Your task to perform on an android device: Open calendar and show me the first week of next month Image 0: 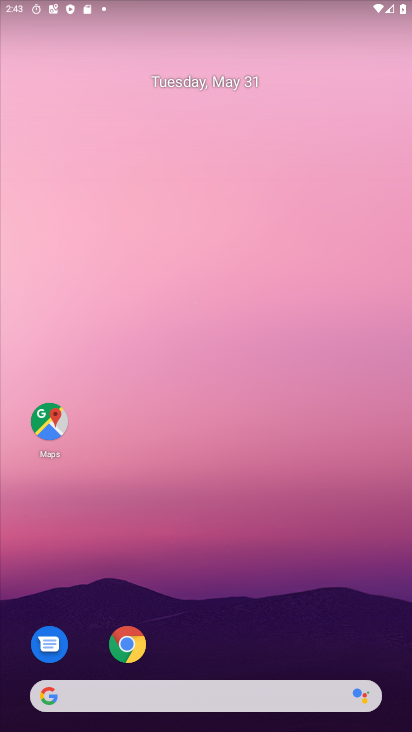
Step 0: drag from (390, 713) to (321, 122)
Your task to perform on an android device: Open calendar and show me the first week of next month Image 1: 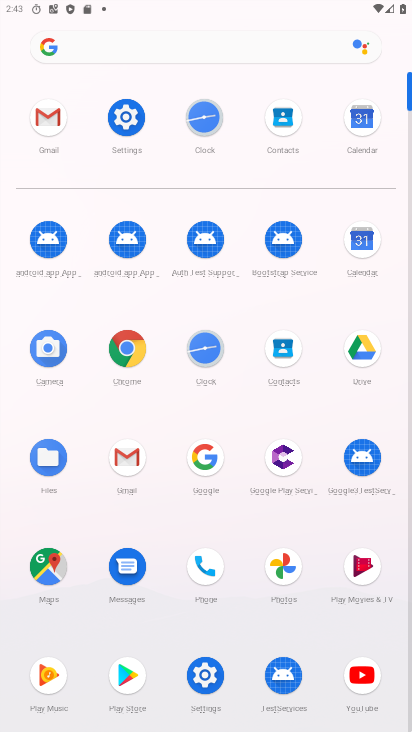
Step 1: click (119, 117)
Your task to perform on an android device: Open calendar and show me the first week of next month Image 2: 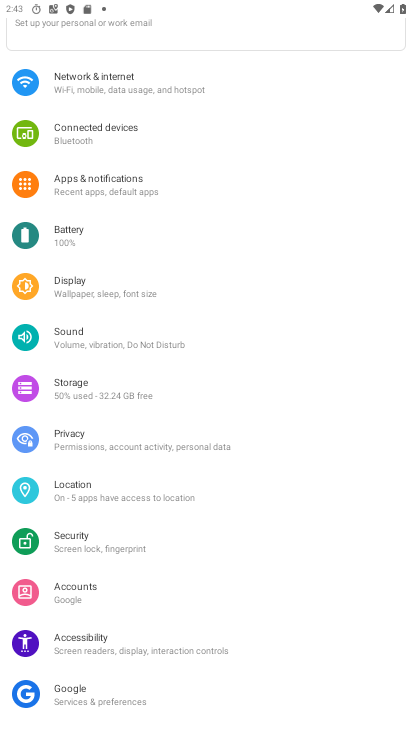
Step 2: press back button
Your task to perform on an android device: Open calendar and show me the first week of next month Image 3: 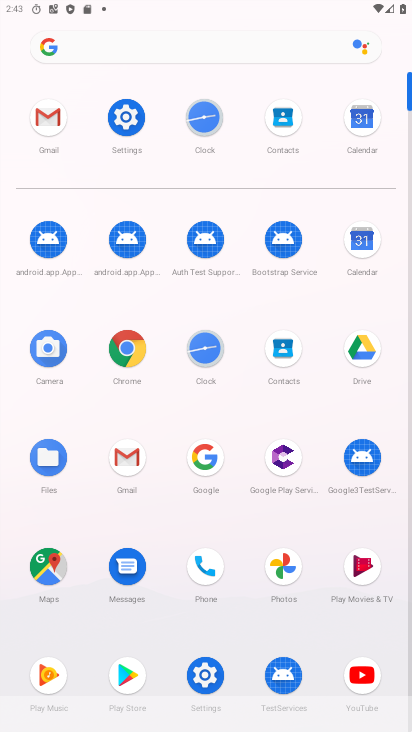
Step 3: click (121, 109)
Your task to perform on an android device: Open calendar and show me the first week of next month Image 4: 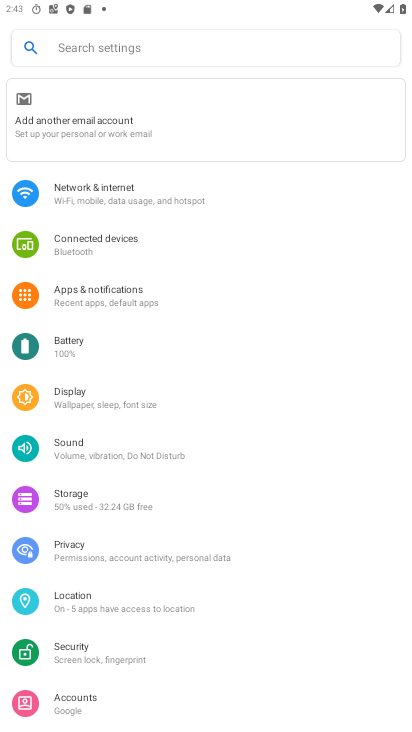
Step 4: press back button
Your task to perform on an android device: Open calendar and show me the first week of next month Image 5: 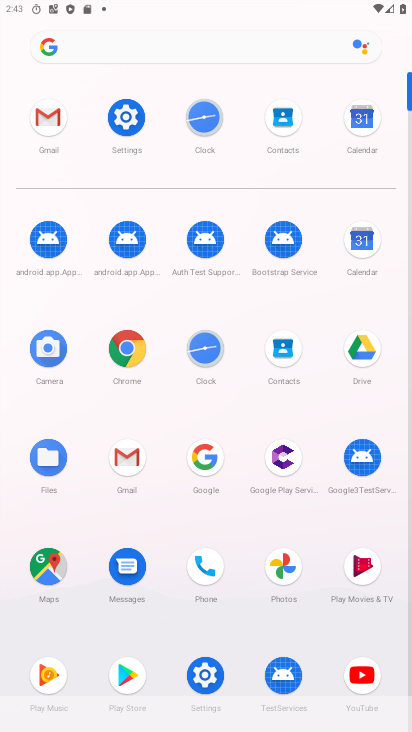
Step 5: click (364, 242)
Your task to perform on an android device: Open calendar and show me the first week of next month Image 6: 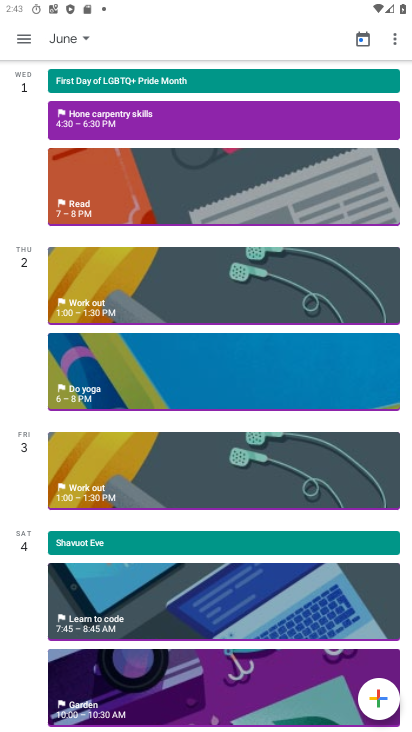
Step 6: click (84, 39)
Your task to perform on an android device: Open calendar and show me the first week of next month Image 7: 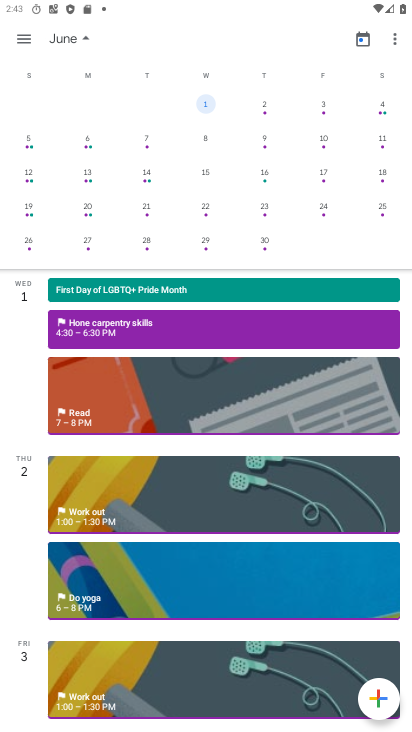
Step 7: click (267, 101)
Your task to perform on an android device: Open calendar and show me the first week of next month Image 8: 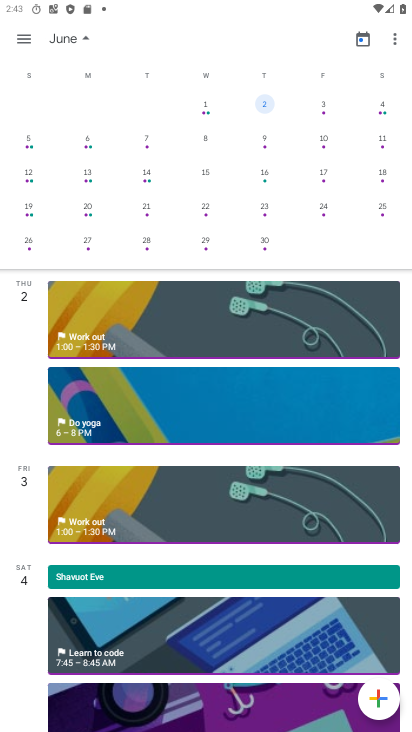
Step 8: click (27, 36)
Your task to perform on an android device: Open calendar and show me the first week of next month Image 9: 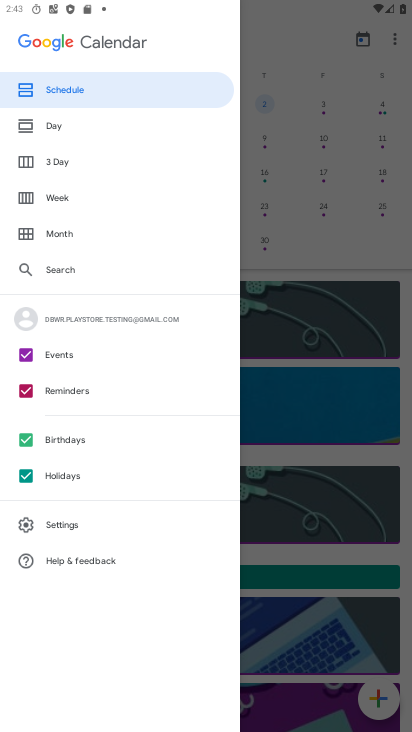
Step 9: click (59, 193)
Your task to perform on an android device: Open calendar and show me the first week of next month Image 10: 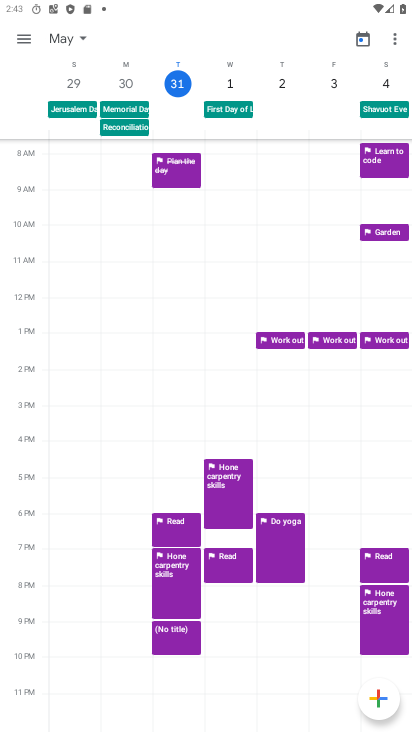
Step 10: task complete